Your task to perform on an android device: toggle notifications settings in the gmail app Image 0: 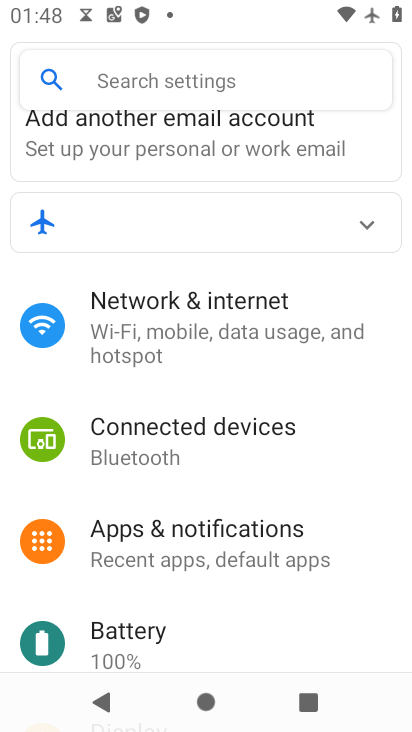
Step 0: press home button
Your task to perform on an android device: toggle notifications settings in the gmail app Image 1: 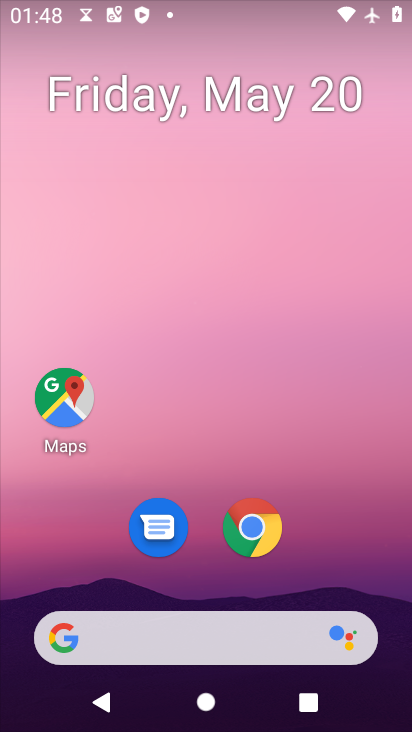
Step 1: drag from (157, 636) to (277, 179)
Your task to perform on an android device: toggle notifications settings in the gmail app Image 2: 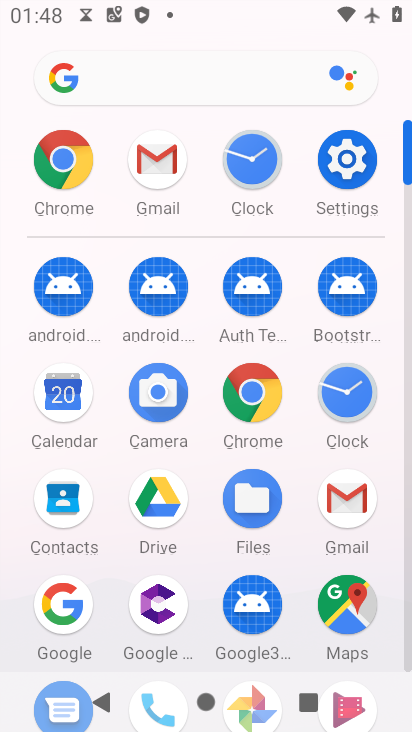
Step 2: click (151, 176)
Your task to perform on an android device: toggle notifications settings in the gmail app Image 3: 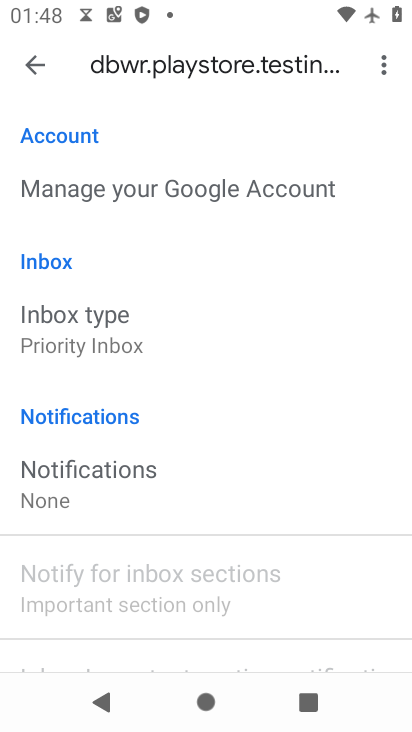
Step 3: click (32, 64)
Your task to perform on an android device: toggle notifications settings in the gmail app Image 4: 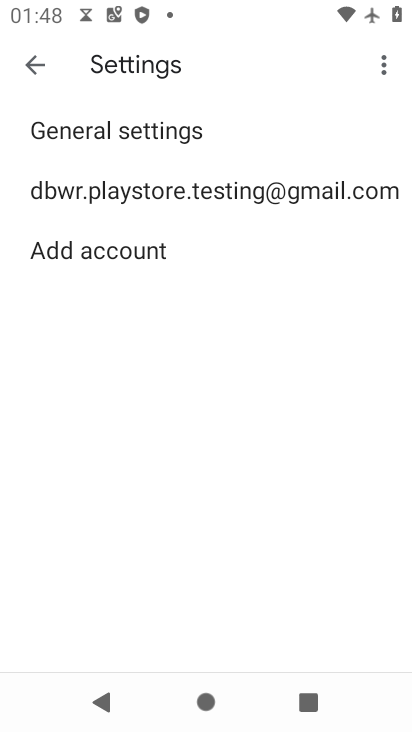
Step 4: click (258, 193)
Your task to perform on an android device: toggle notifications settings in the gmail app Image 5: 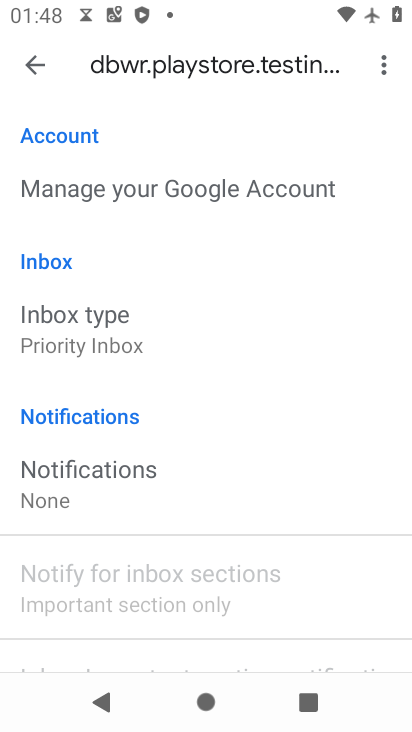
Step 5: click (79, 503)
Your task to perform on an android device: toggle notifications settings in the gmail app Image 6: 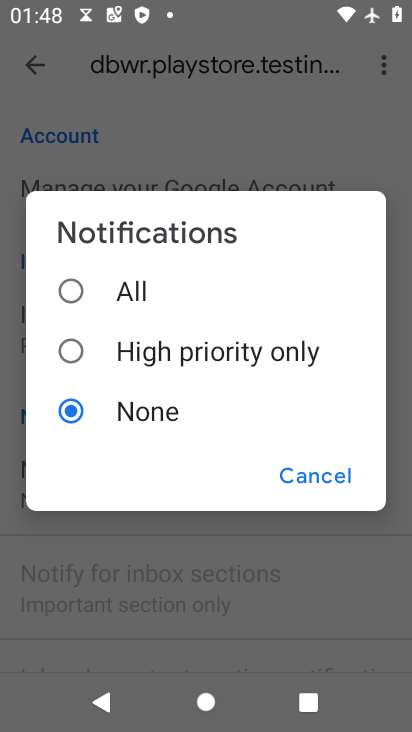
Step 6: click (63, 292)
Your task to perform on an android device: toggle notifications settings in the gmail app Image 7: 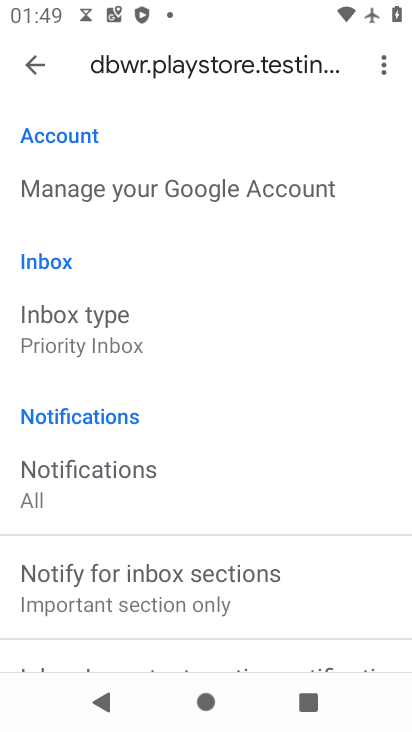
Step 7: task complete